Your task to perform on an android device: change the upload size in google photos Image 0: 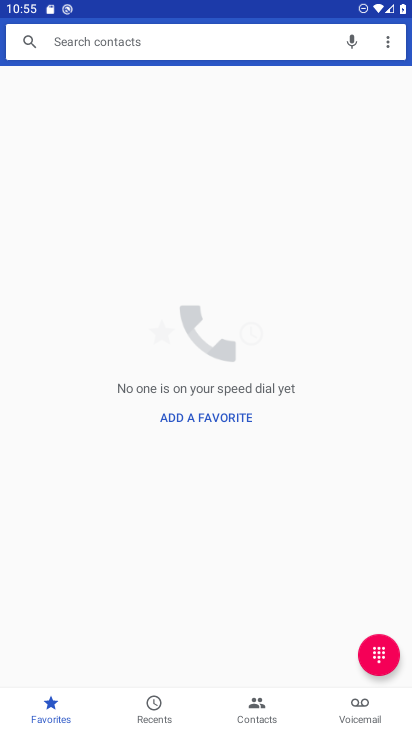
Step 0: press home button
Your task to perform on an android device: change the upload size in google photos Image 1: 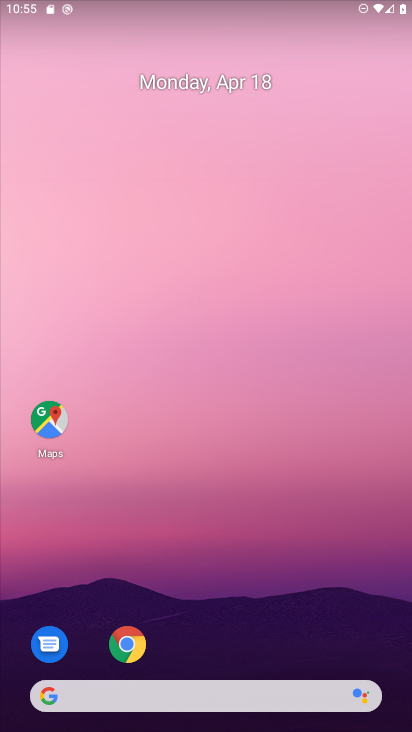
Step 1: drag from (187, 432) to (243, 85)
Your task to perform on an android device: change the upload size in google photos Image 2: 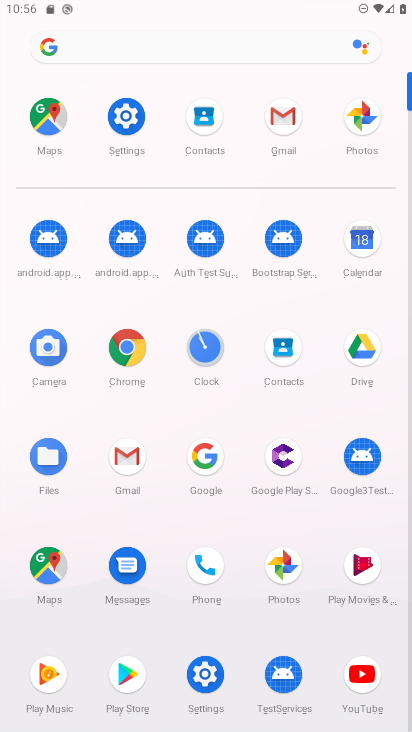
Step 2: click (274, 565)
Your task to perform on an android device: change the upload size in google photos Image 3: 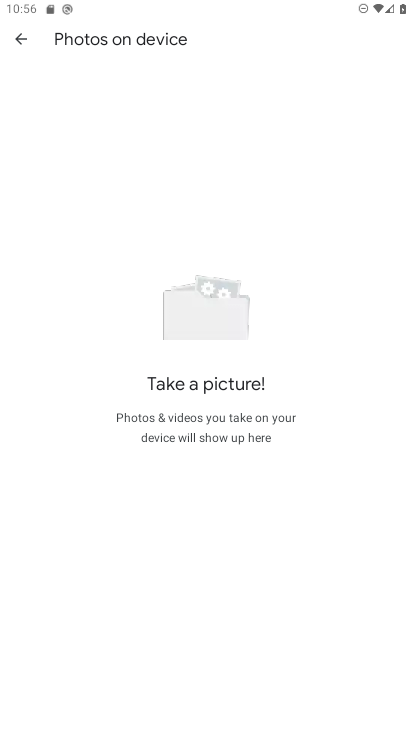
Step 3: click (19, 38)
Your task to perform on an android device: change the upload size in google photos Image 4: 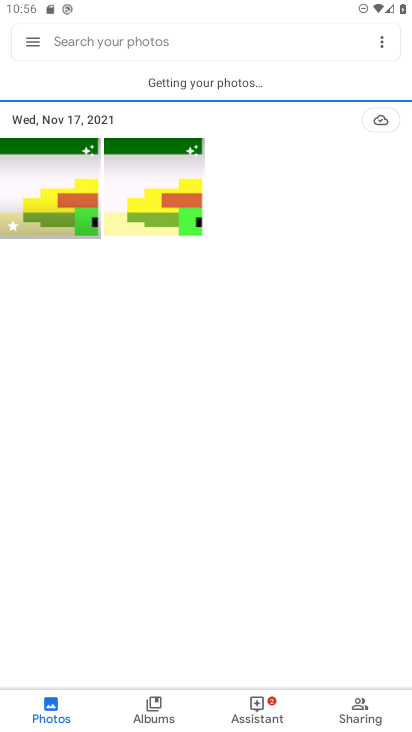
Step 4: click (19, 38)
Your task to perform on an android device: change the upload size in google photos Image 5: 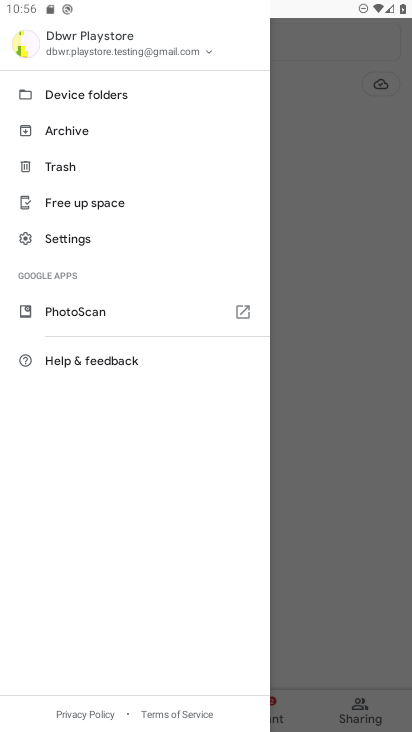
Step 5: click (85, 237)
Your task to perform on an android device: change the upload size in google photos Image 6: 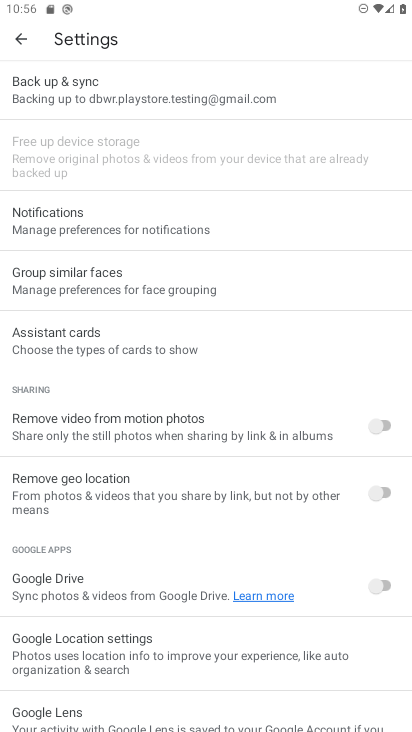
Step 6: click (136, 97)
Your task to perform on an android device: change the upload size in google photos Image 7: 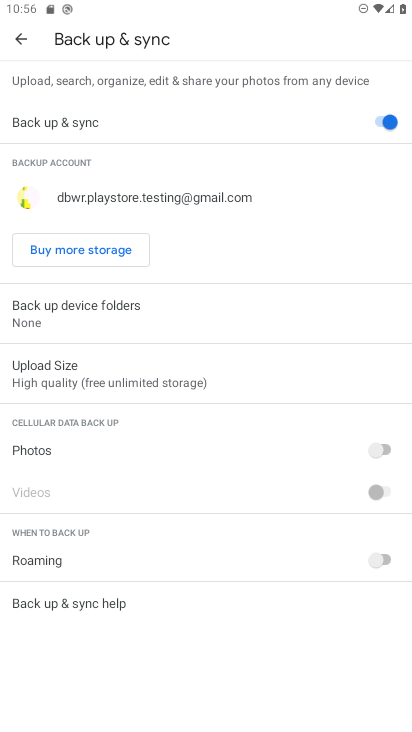
Step 7: click (130, 370)
Your task to perform on an android device: change the upload size in google photos Image 8: 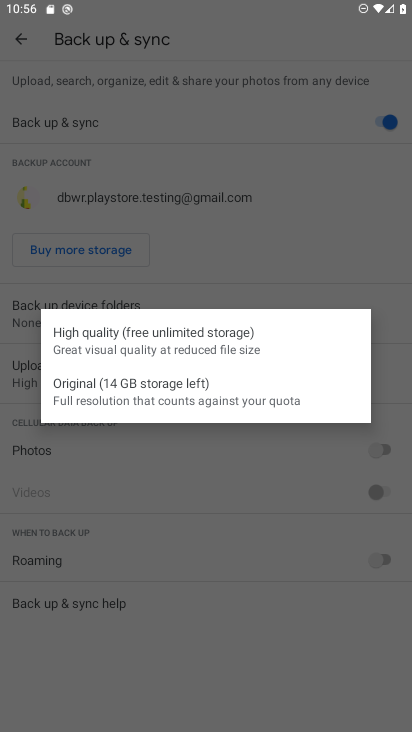
Step 8: click (145, 389)
Your task to perform on an android device: change the upload size in google photos Image 9: 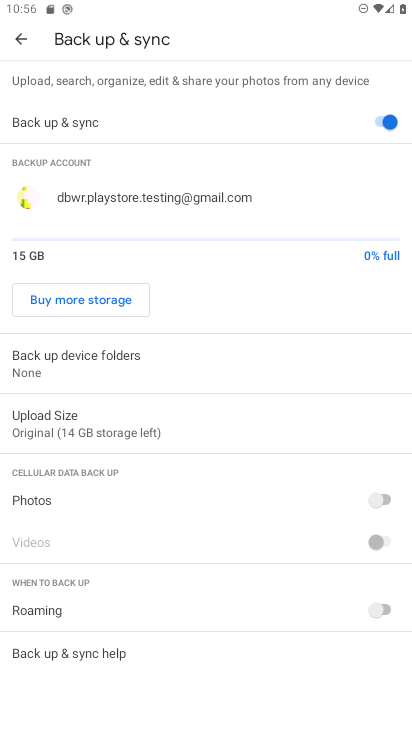
Step 9: task complete